Your task to perform on an android device: change alarm snooze length Image 0: 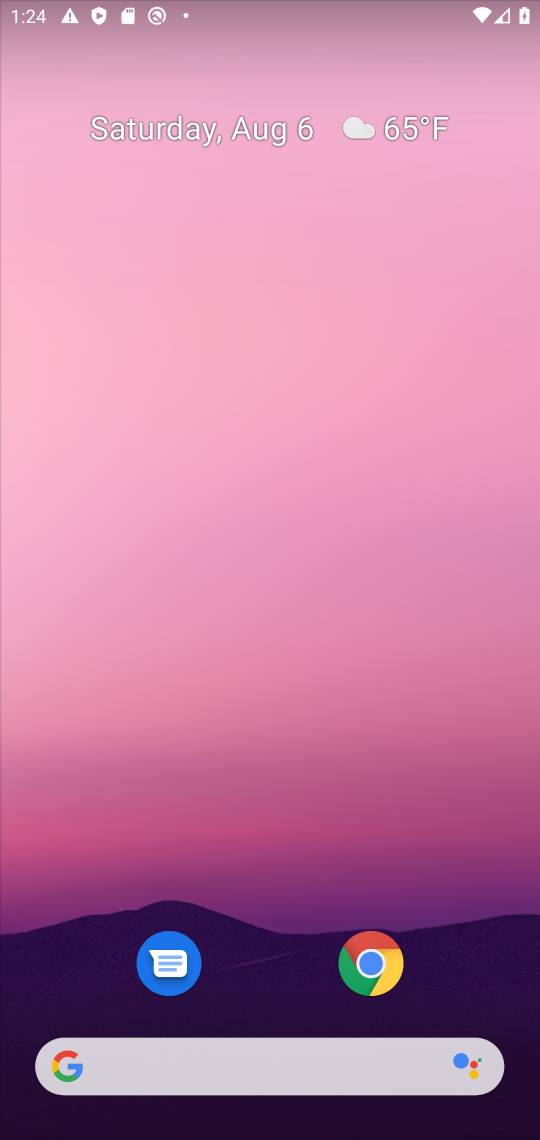
Step 0: drag from (138, 486) to (158, 364)
Your task to perform on an android device: change alarm snooze length Image 1: 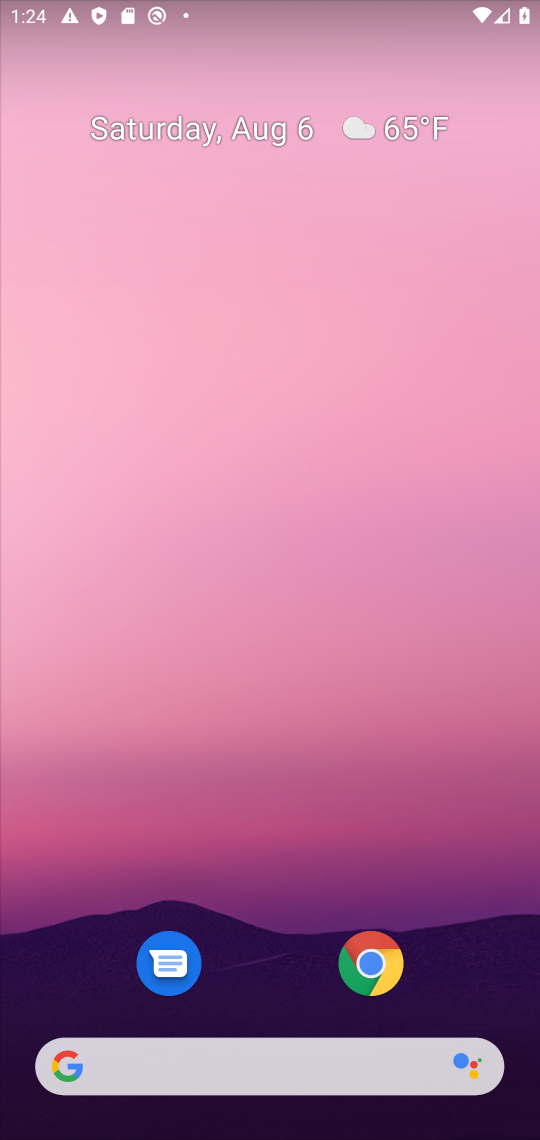
Step 1: drag from (33, 1123) to (145, 342)
Your task to perform on an android device: change alarm snooze length Image 2: 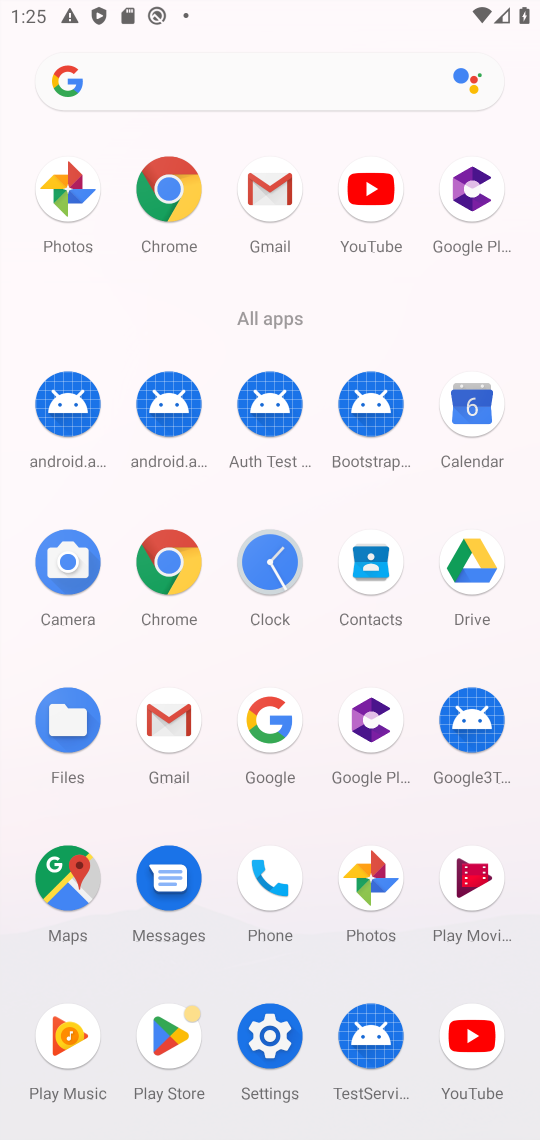
Step 2: click (277, 583)
Your task to perform on an android device: change alarm snooze length Image 3: 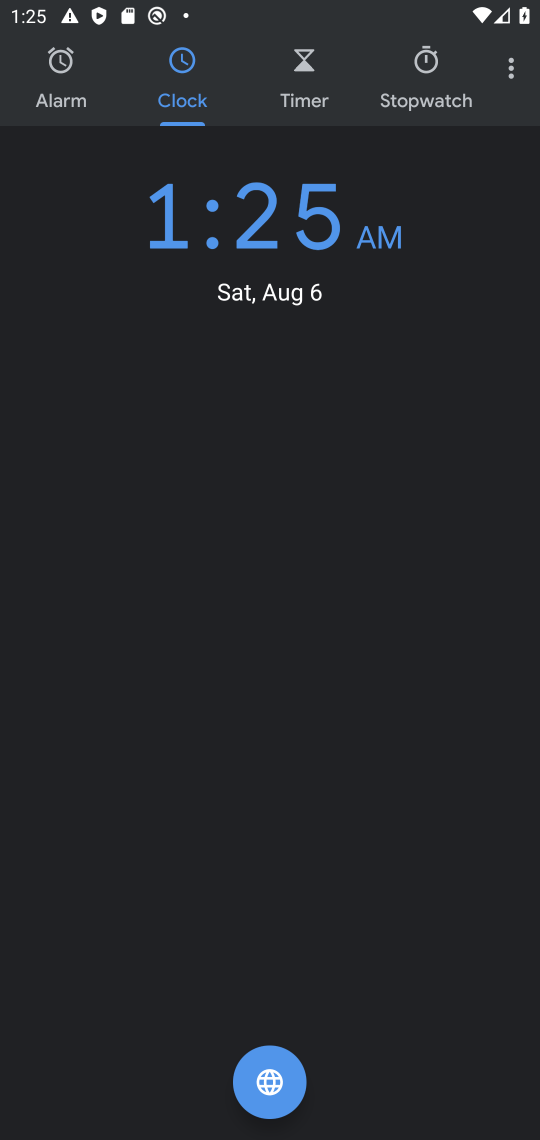
Step 3: click (515, 65)
Your task to perform on an android device: change alarm snooze length Image 4: 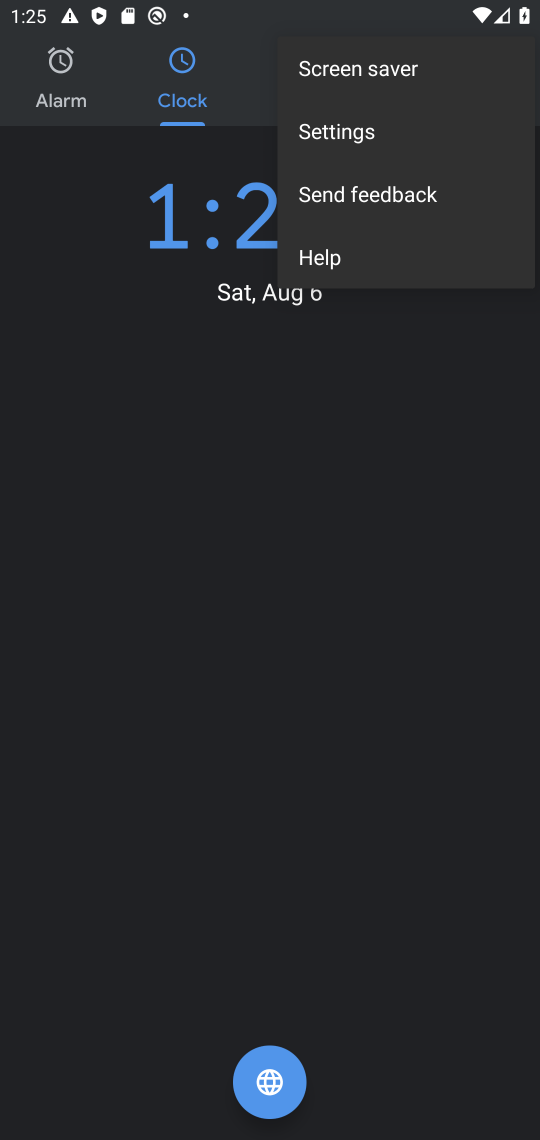
Step 4: click (337, 148)
Your task to perform on an android device: change alarm snooze length Image 5: 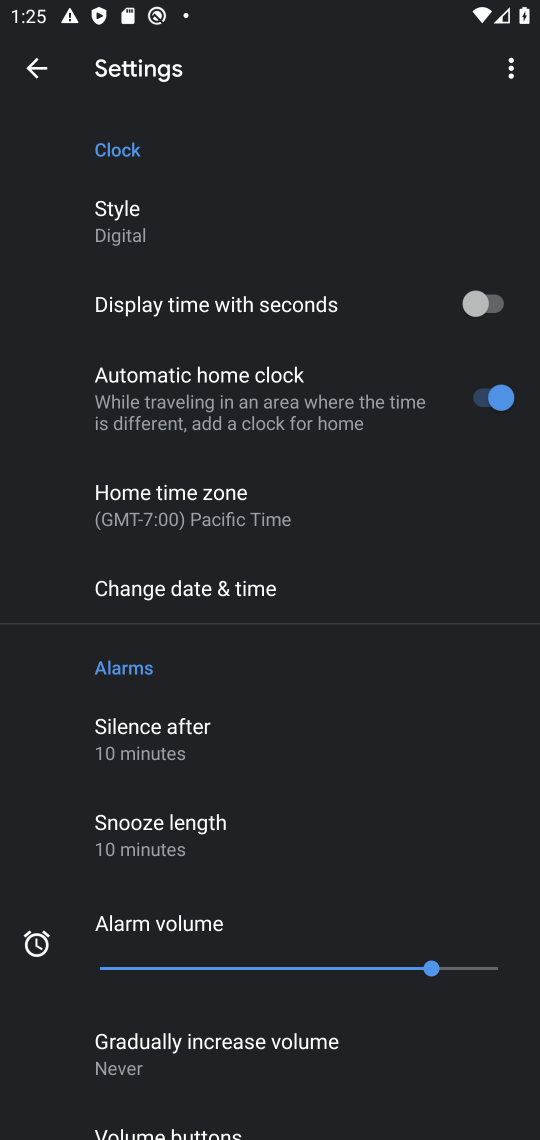
Step 5: click (143, 833)
Your task to perform on an android device: change alarm snooze length Image 6: 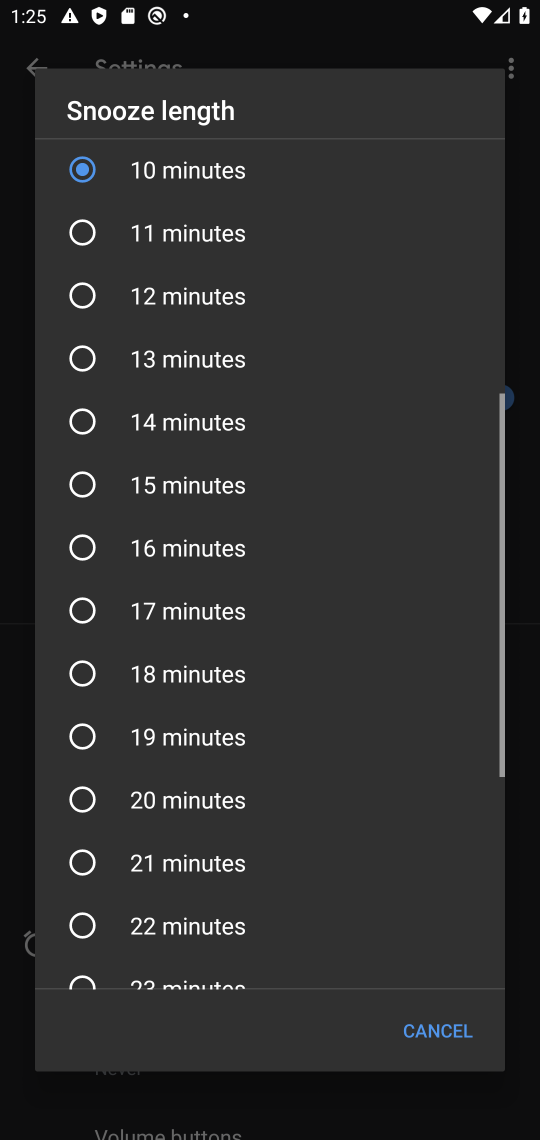
Step 6: click (228, 691)
Your task to perform on an android device: change alarm snooze length Image 7: 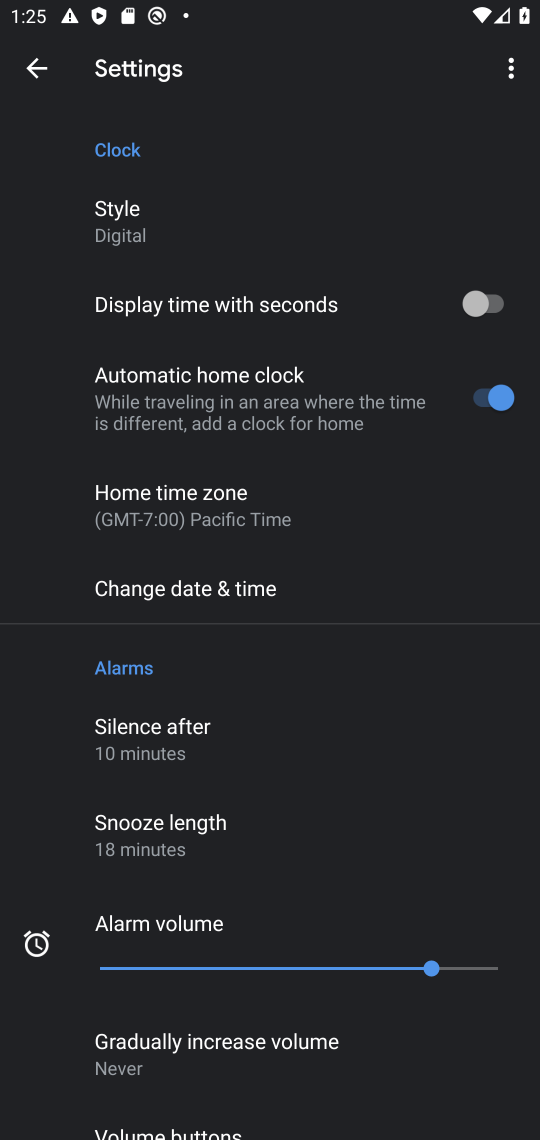
Step 7: task complete